Your task to perform on an android device: change the clock style Image 0: 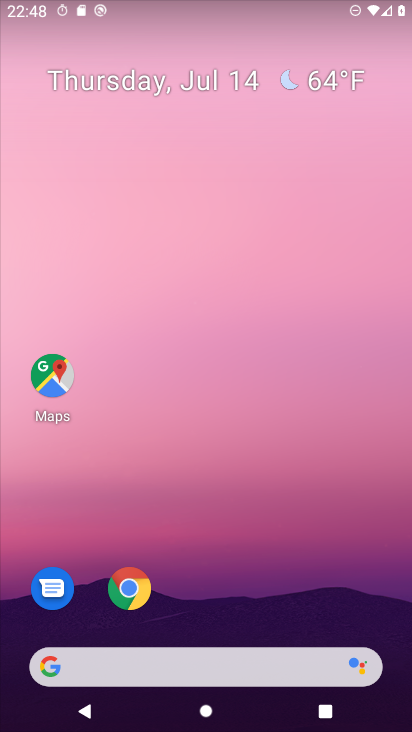
Step 0: drag from (332, 593) to (368, 77)
Your task to perform on an android device: change the clock style Image 1: 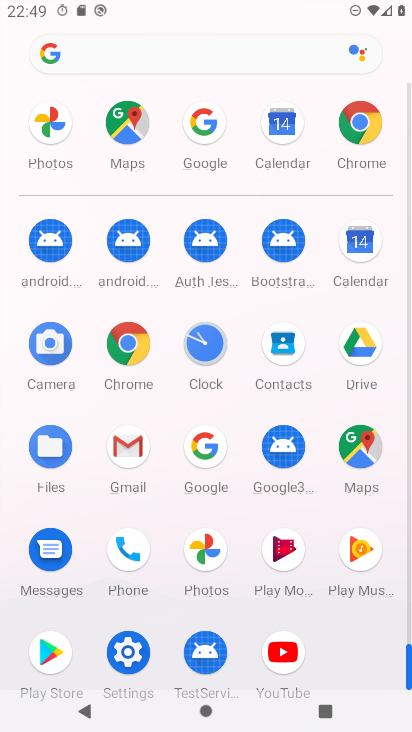
Step 1: click (210, 345)
Your task to perform on an android device: change the clock style Image 2: 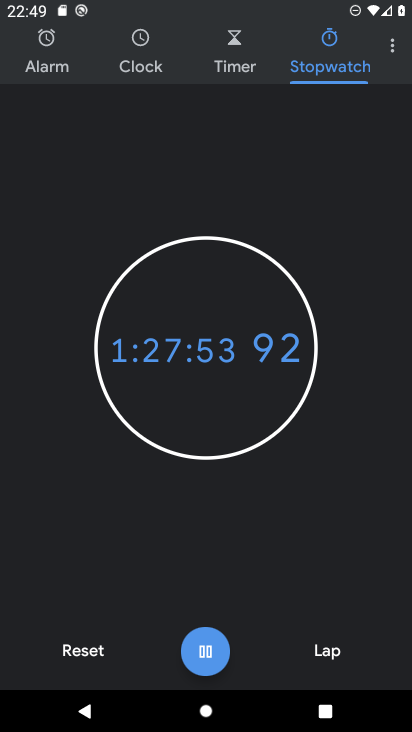
Step 2: click (391, 48)
Your task to perform on an android device: change the clock style Image 3: 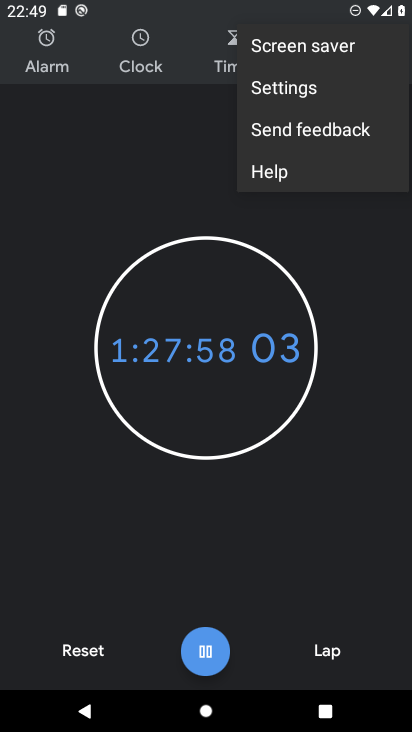
Step 3: click (338, 89)
Your task to perform on an android device: change the clock style Image 4: 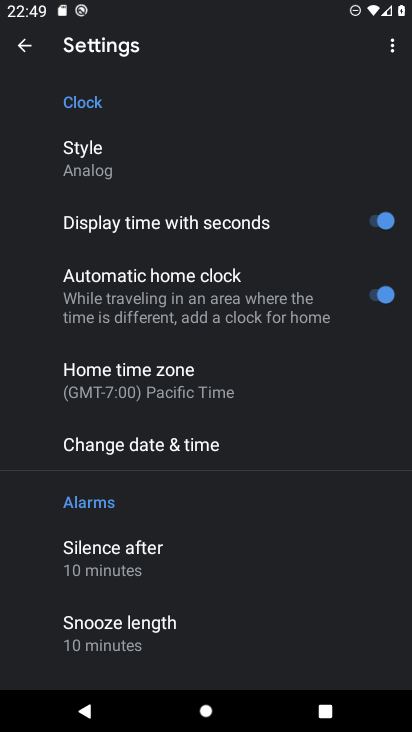
Step 4: drag from (337, 454) to (336, 256)
Your task to perform on an android device: change the clock style Image 5: 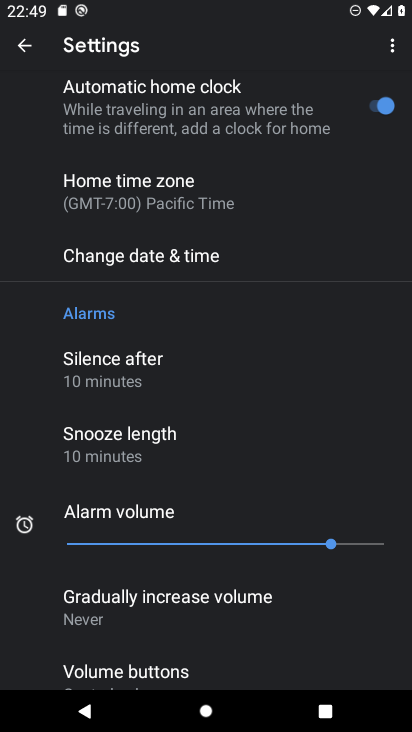
Step 5: drag from (342, 454) to (355, 342)
Your task to perform on an android device: change the clock style Image 6: 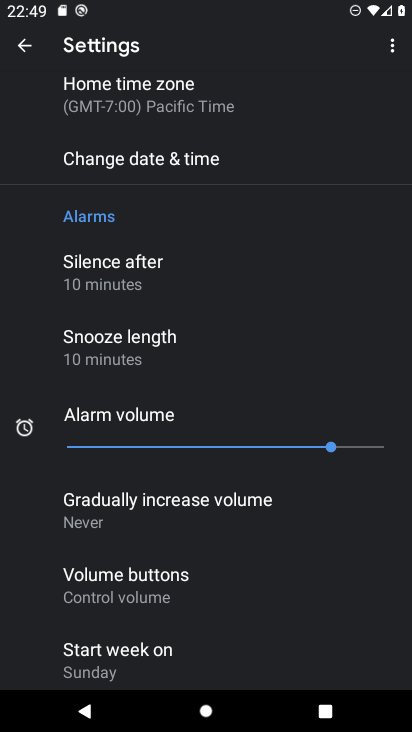
Step 6: drag from (361, 326) to (363, 425)
Your task to perform on an android device: change the clock style Image 7: 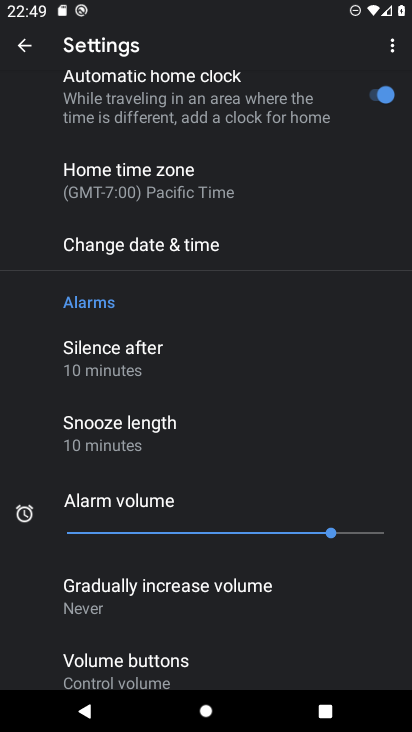
Step 7: drag from (360, 307) to (363, 366)
Your task to perform on an android device: change the clock style Image 8: 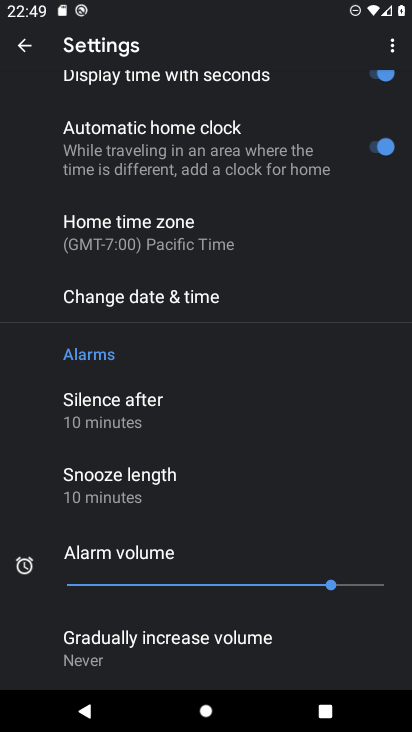
Step 8: drag from (356, 243) to (354, 373)
Your task to perform on an android device: change the clock style Image 9: 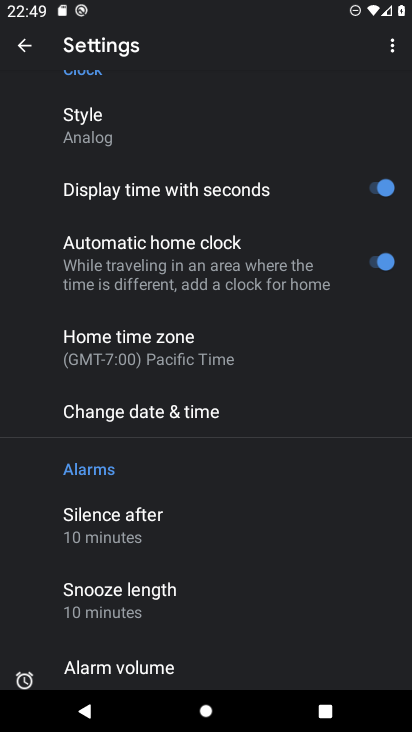
Step 9: drag from (334, 210) to (330, 372)
Your task to perform on an android device: change the clock style Image 10: 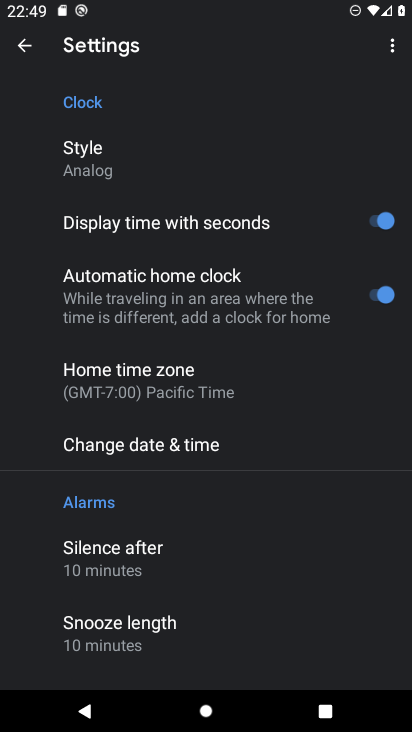
Step 10: click (103, 164)
Your task to perform on an android device: change the clock style Image 11: 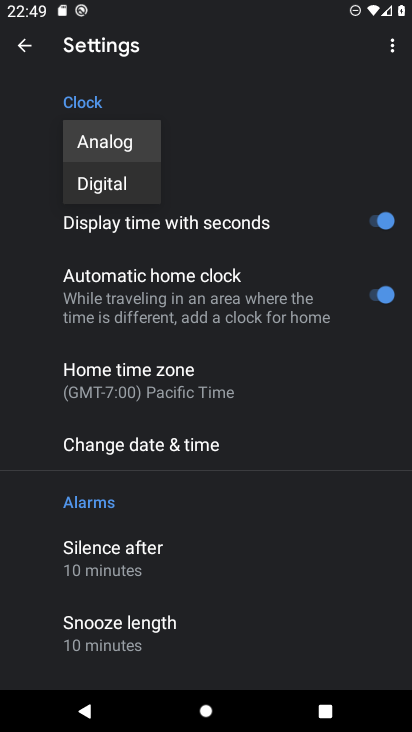
Step 11: click (119, 186)
Your task to perform on an android device: change the clock style Image 12: 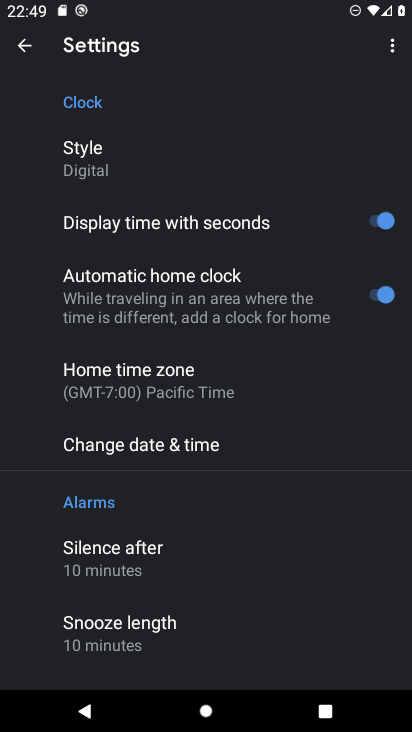
Step 12: task complete